Your task to perform on an android device: What's the weather going to be this weekend? Image 0: 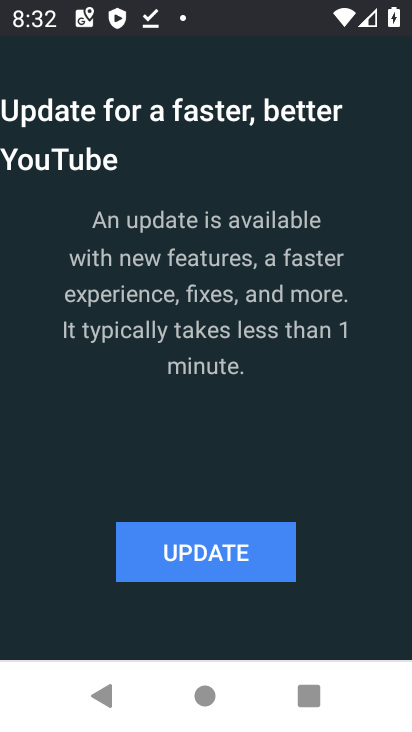
Step 0: press back button
Your task to perform on an android device: What's the weather going to be this weekend? Image 1: 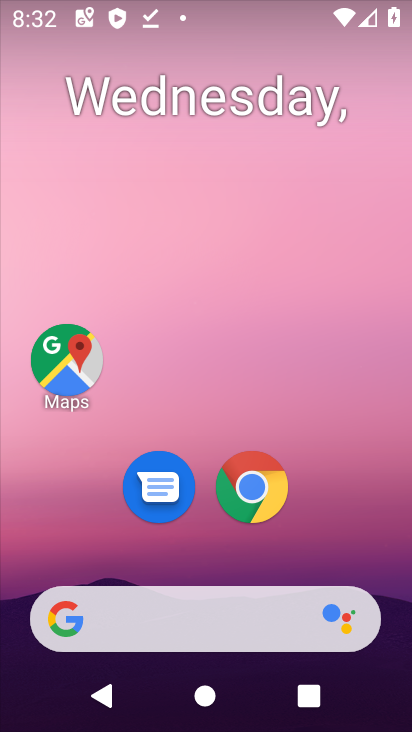
Step 1: drag from (270, 688) to (177, 64)
Your task to perform on an android device: What's the weather going to be this weekend? Image 2: 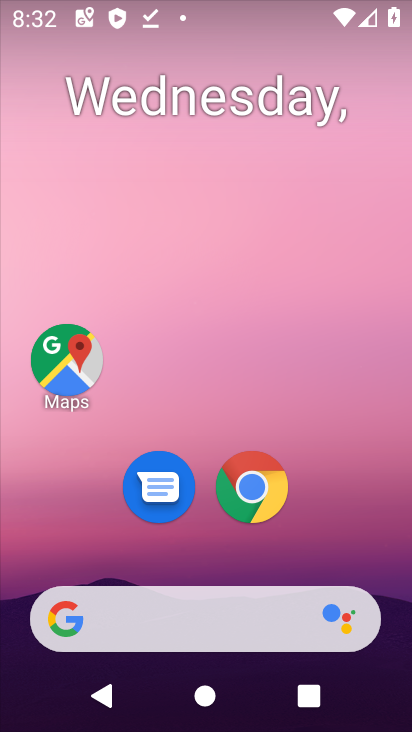
Step 2: drag from (2, 217) to (295, 285)
Your task to perform on an android device: What's the weather going to be this weekend? Image 3: 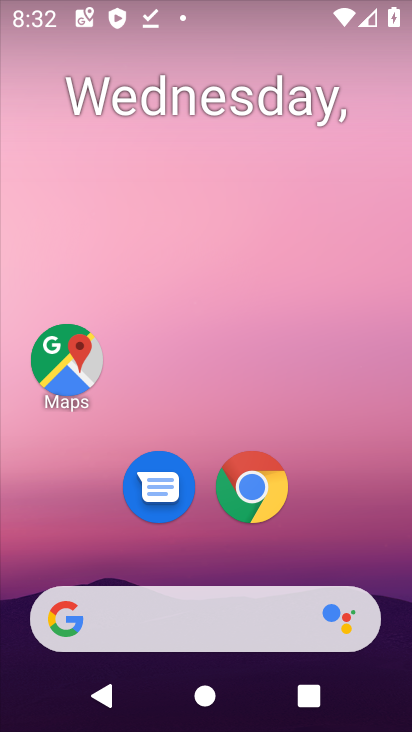
Step 3: drag from (11, 196) to (410, 324)
Your task to perform on an android device: What's the weather going to be this weekend? Image 4: 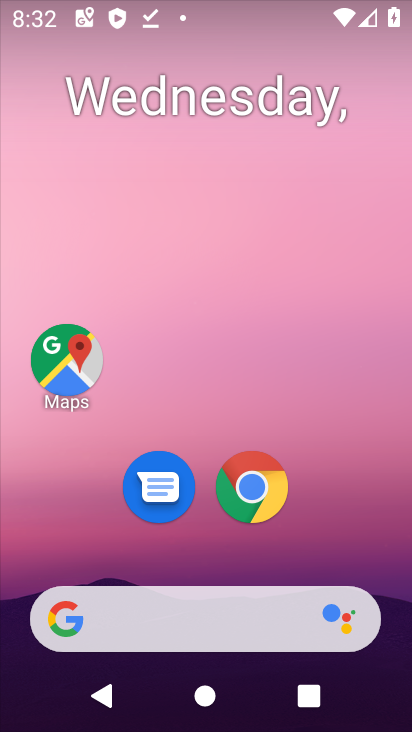
Step 4: drag from (9, 215) to (166, 352)
Your task to perform on an android device: What's the weather going to be this weekend? Image 5: 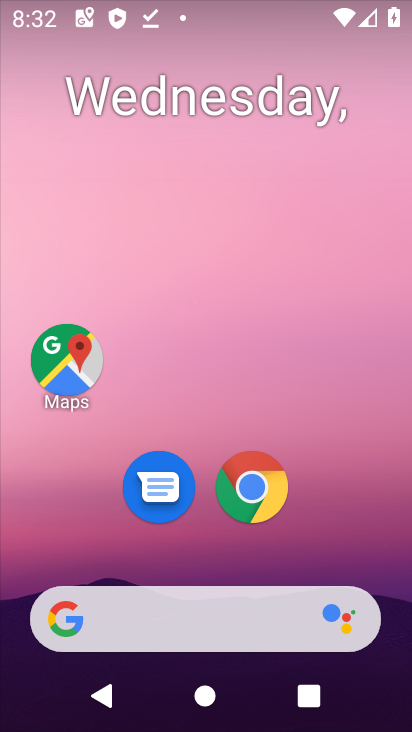
Step 5: drag from (36, 188) to (349, 356)
Your task to perform on an android device: What's the weather going to be this weekend? Image 6: 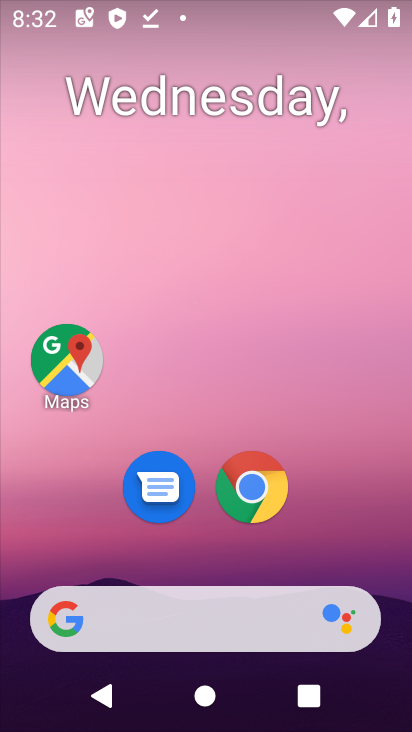
Step 6: drag from (54, 250) to (359, 336)
Your task to perform on an android device: What's the weather going to be this weekend? Image 7: 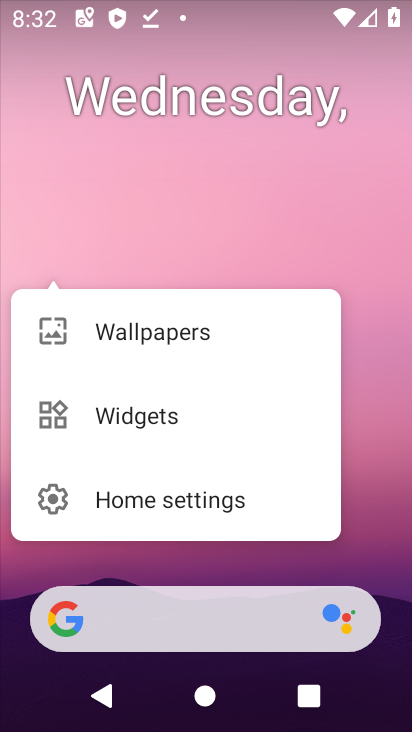
Step 7: drag from (27, 224) to (379, 283)
Your task to perform on an android device: What's the weather going to be this weekend? Image 8: 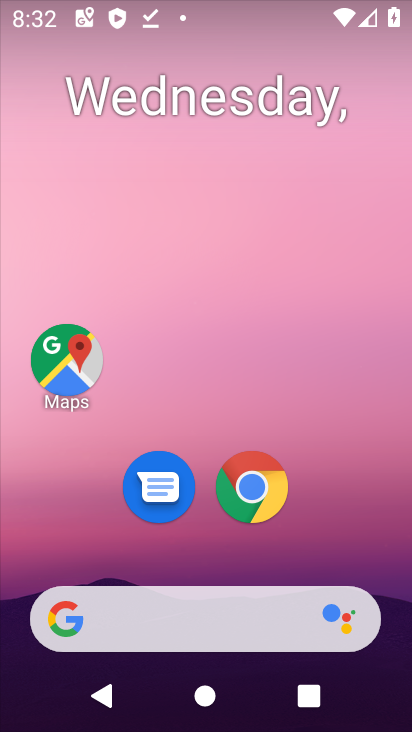
Step 8: drag from (50, 197) to (406, 287)
Your task to perform on an android device: What's the weather going to be this weekend? Image 9: 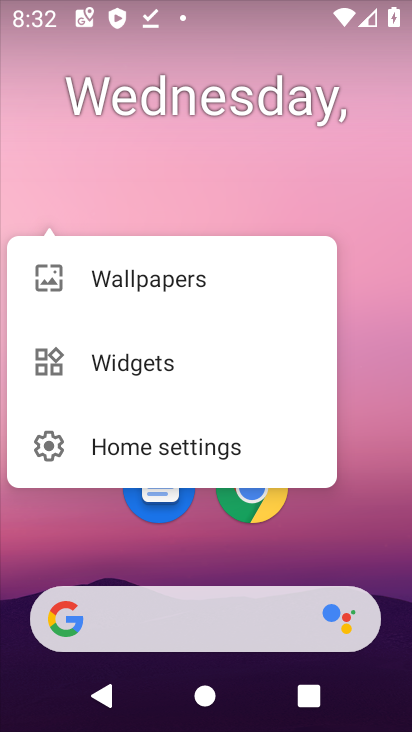
Step 9: drag from (26, 163) to (401, 450)
Your task to perform on an android device: What's the weather going to be this weekend? Image 10: 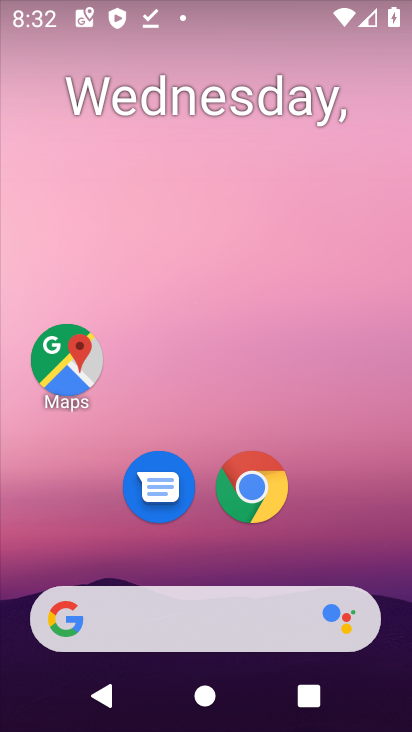
Step 10: click (341, 440)
Your task to perform on an android device: What's the weather going to be this weekend? Image 11: 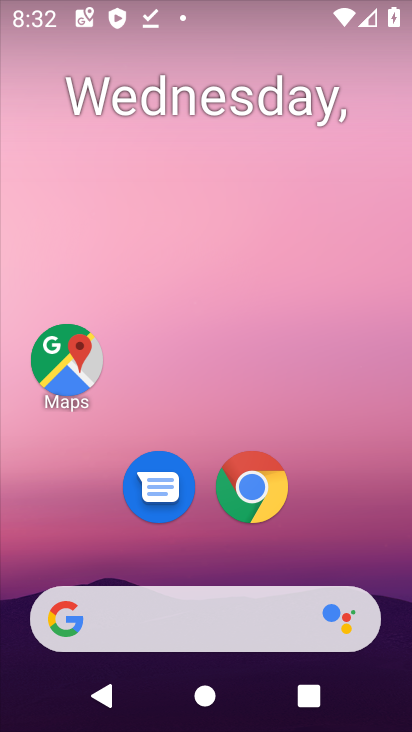
Step 11: drag from (15, 195) to (398, 403)
Your task to perform on an android device: What's the weather going to be this weekend? Image 12: 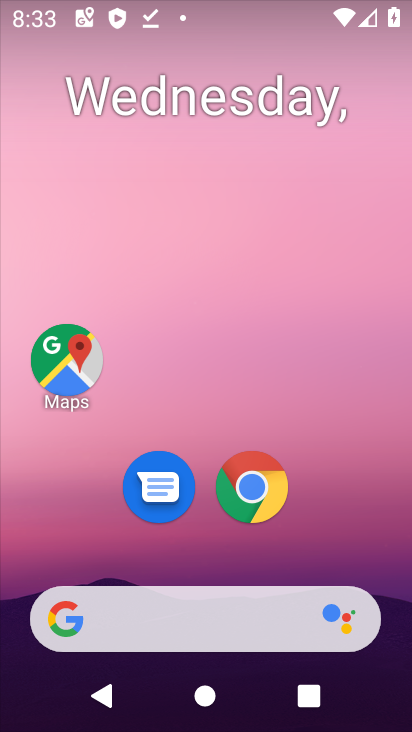
Step 12: drag from (408, 334) to (384, 371)
Your task to perform on an android device: What's the weather going to be this weekend? Image 13: 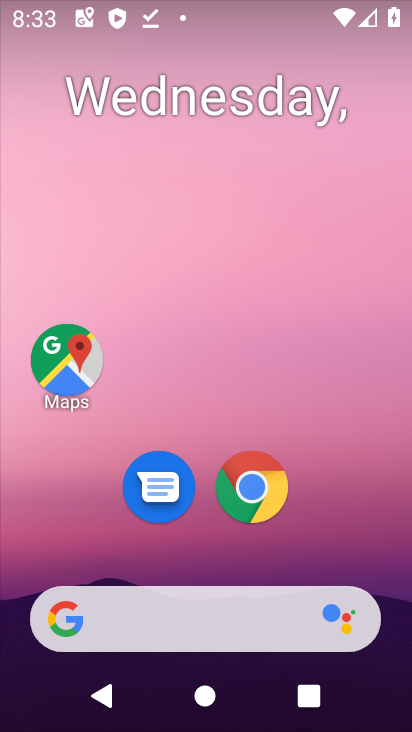
Step 13: click (404, 478)
Your task to perform on an android device: What's the weather going to be this weekend? Image 14: 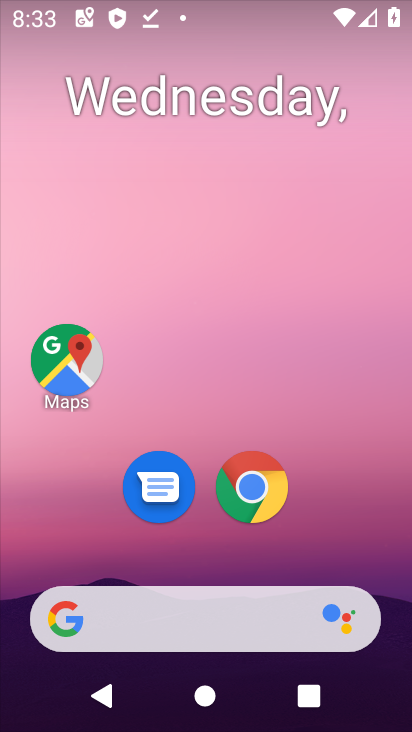
Step 14: drag from (190, 233) to (354, 436)
Your task to perform on an android device: What's the weather going to be this weekend? Image 15: 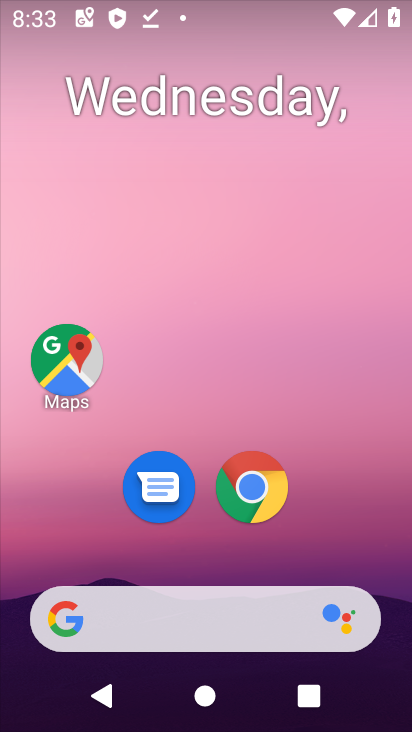
Step 15: drag from (2, 187) to (383, 353)
Your task to perform on an android device: What's the weather going to be this weekend? Image 16: 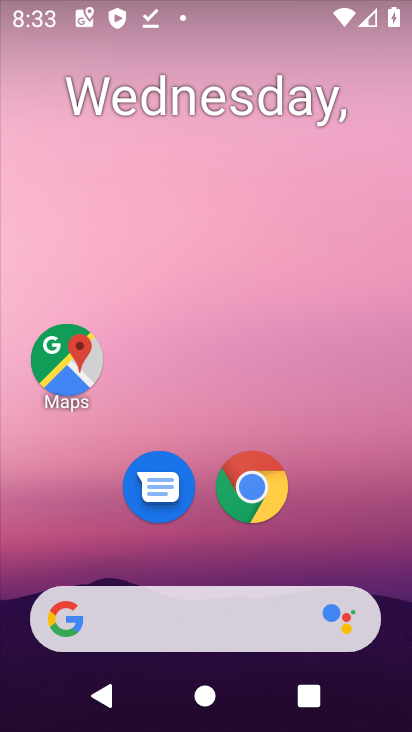
Step 16: click (394, 304)
Your task to perform on an android device: What's the weather going to be this weekend? Image 17: 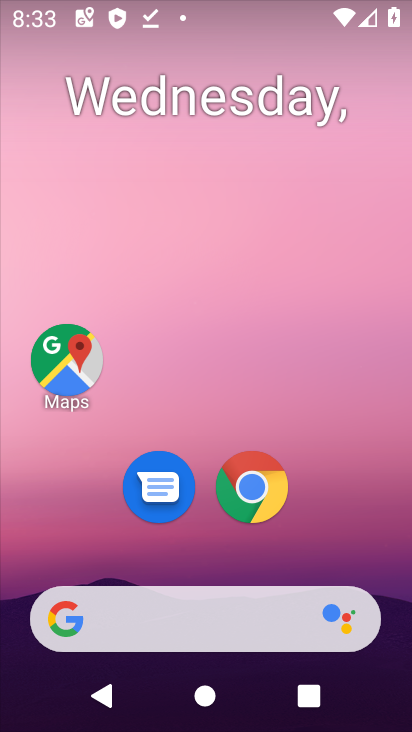
Step 17: drag from (1, 180) to (399, 334)
Your task to perform on an android device: What's the weather going to be this weekend? Image 18: 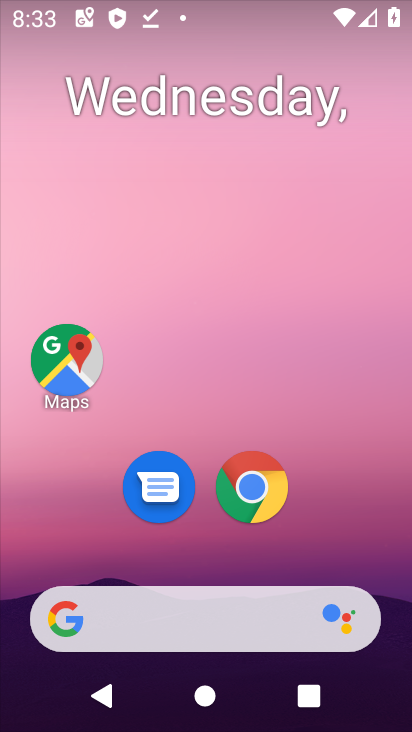
Step 18: click (401, 374)
Your task to perform on an android device: What's the weather going to be this weekend? Image 19: 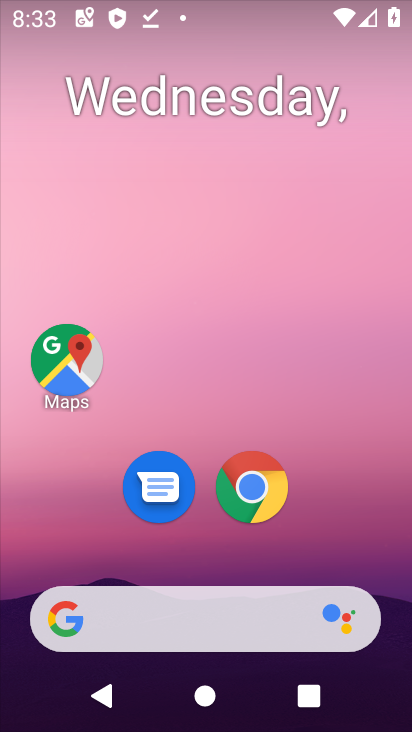
Step 19: click (355, 309)
Your task to perform on an android device: What's the weather going to be this weekend? Image 20: 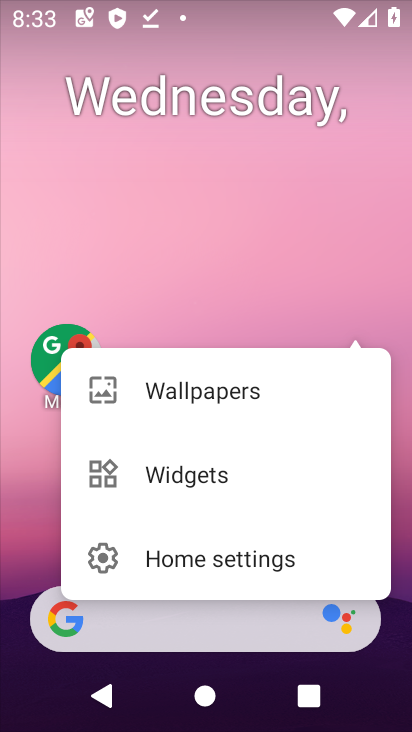
Step 20: drag from (17, 200) to (377, 403)
Your task to perform on an android device: What's the weather going to be this weekend? Image 21: 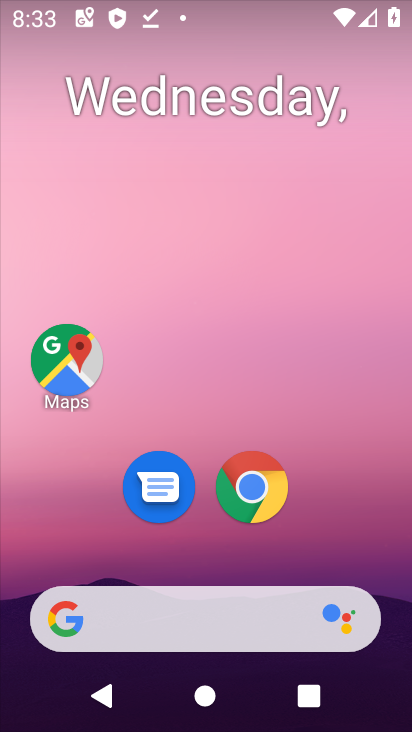
Step 21: click (364, 384)
Your task to perform on an android device: What's the weather going to be this weekend? Image 22: 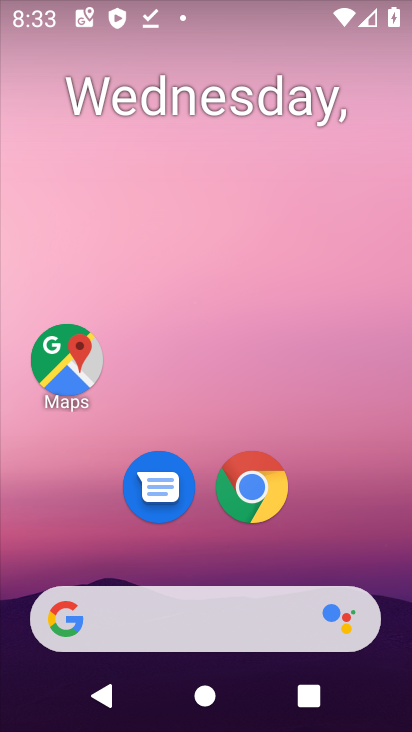
Step 22: drag from (9, 280) to (350, 460)
Your task to perform on an android device: What's the weather going to be this weekend? Image 23: 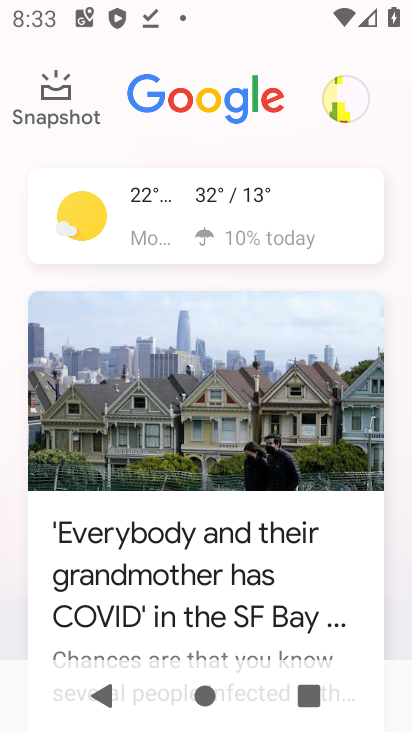
Step 23: drag from (21, 195) to (391, 351)
Your task to perform on an android device: What's the weather going to be this weekend? Image 24: 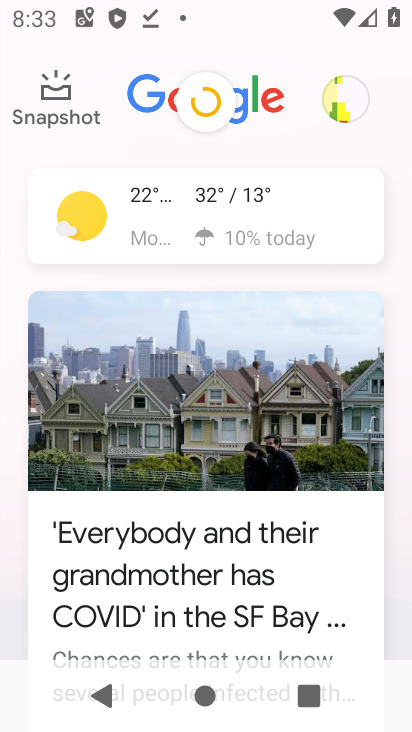
Step 24: click (154, 218)
Your task to perform on an android device: What's the weather going to be this weekend? Image 25: 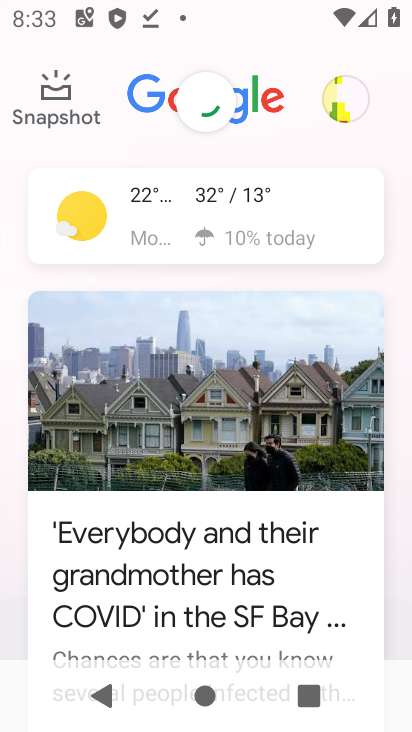
Step 25: click (154, 218)
Your task to perform on an android device: What's the weather going to be this weekend? Image 26: 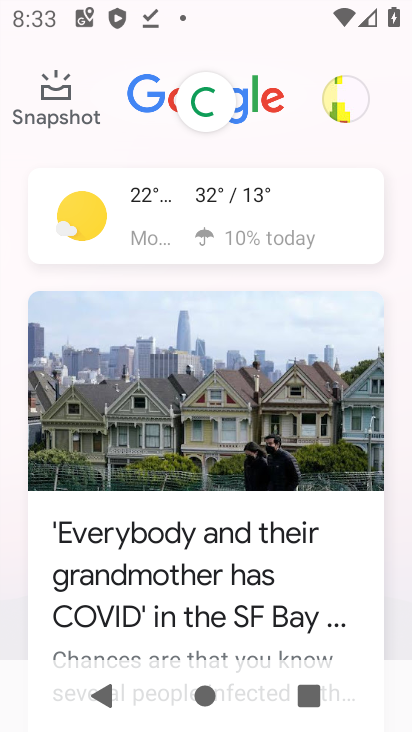
Step 26: click (154, 218)
Your task to perform on an android device: What's the weather going to be this weekend? Image 27: 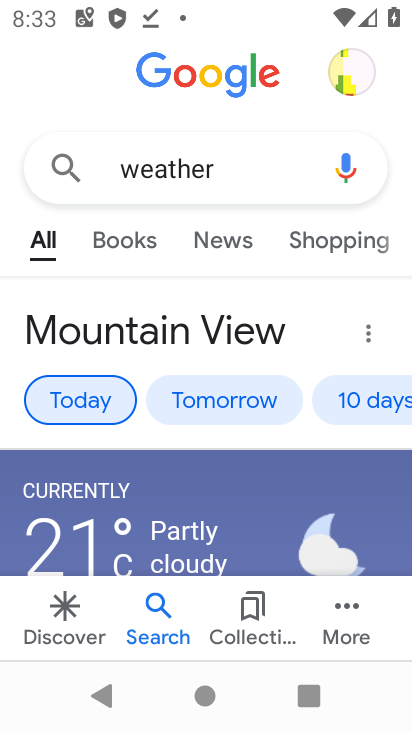
Step 27: click (200, 392)
Your task to perform on an android device: What's the weather going to be this weekend? Image 28: 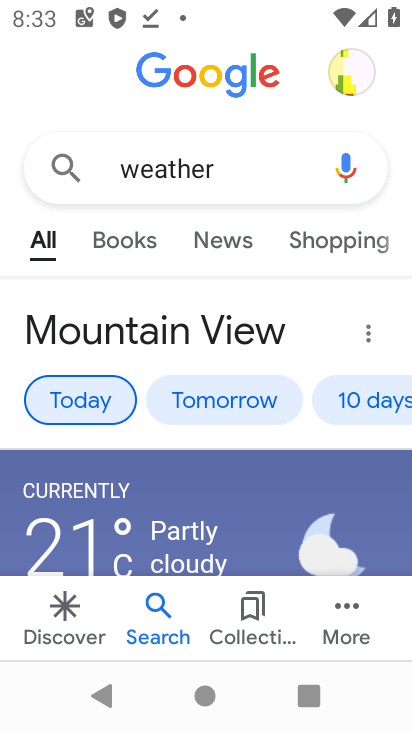
Step 28: click (200, 392)
Your task to perform on an android device: What's the weather going to be this weekend? Image 29: 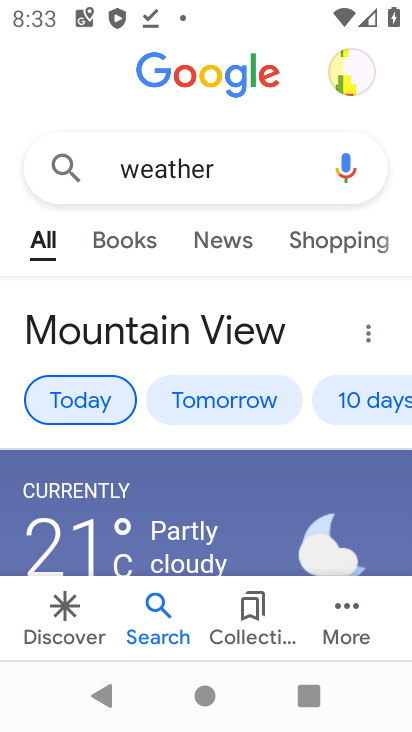
Step 29: click (201, 392)
Your task to perform on an android device: What's the weather going to be this weekend? Image 30: 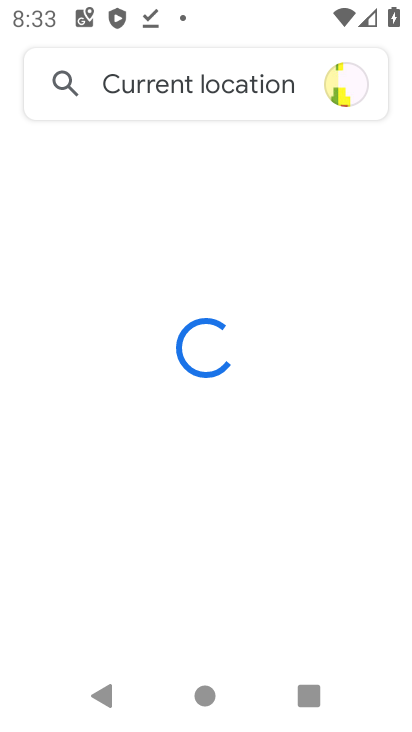
Step 30: click (201, 392)
Your task to perform on an android device: What's the weather going to be this weekend? Image 31: 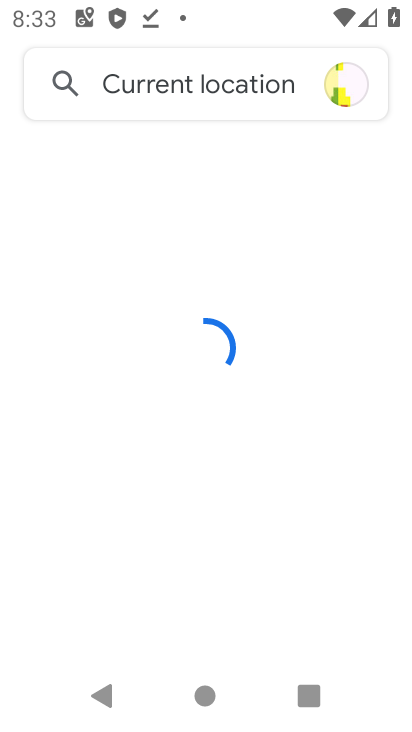
Step 31: click (201, 392)
Your task to perform on an android device: What's the weather going to be this weekend? Image 32: 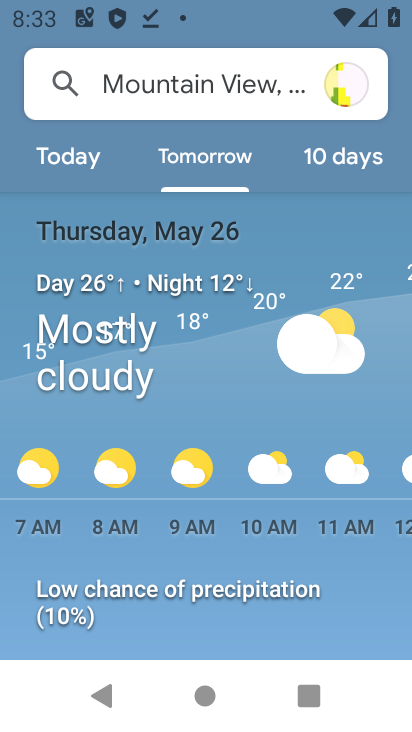
Step 32: task complete